Your task to perform on an android device: Open Google Chrome Image 0: 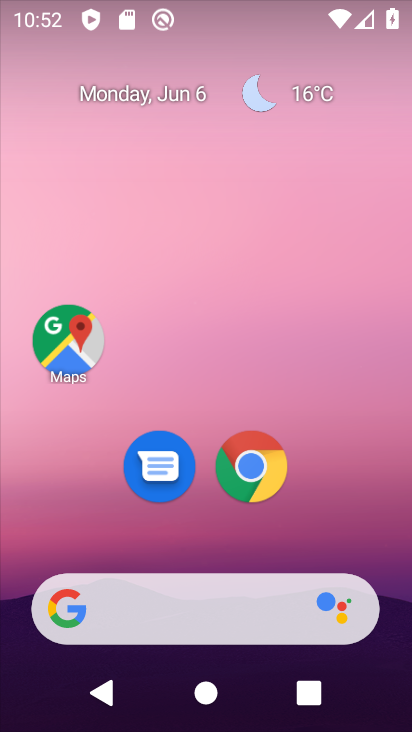
Step 0: click (247, 454)
Your task to perform on an android device: Open Google Chrome Image 1: 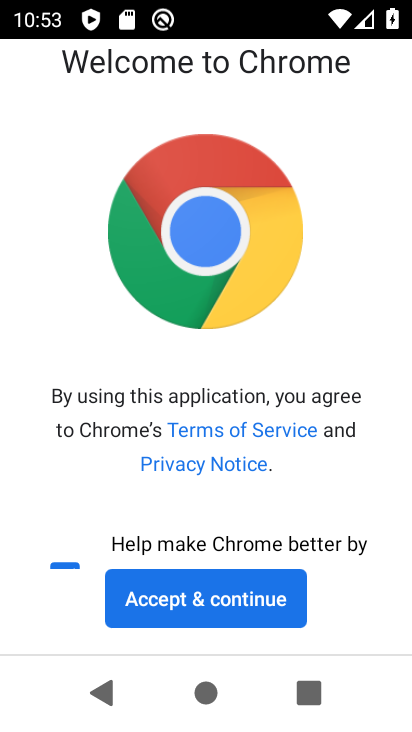
Step 1: click (254, 590)
Your task to perform on an android device: Open Google Chrome Image 2: 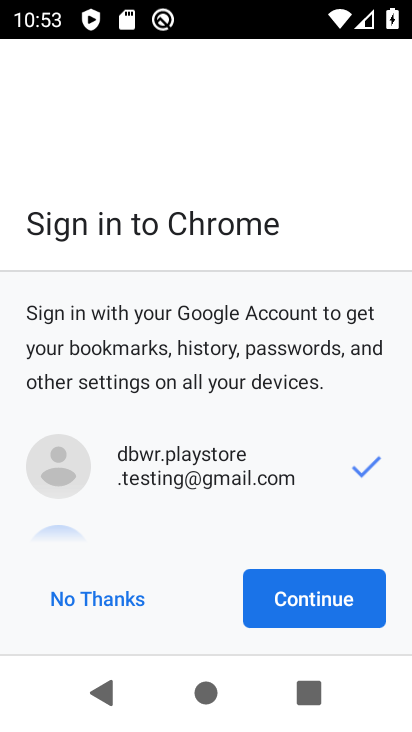
Step 2: click (348, 620)
Your task to perform on an android device: Open Google Chrome Image 3: 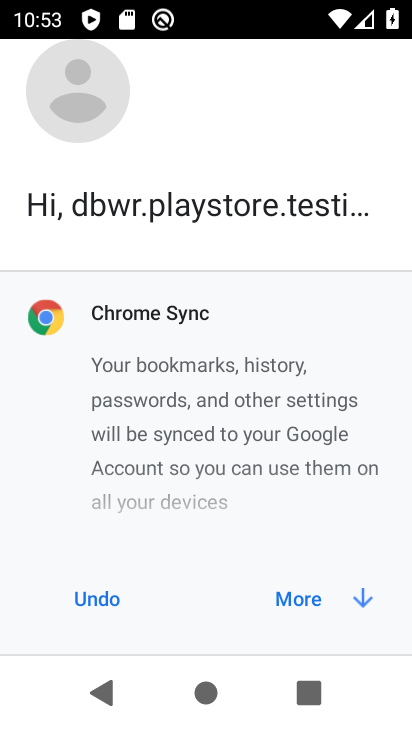
Step 3: click (348, 620)
Your task to perform on an android device: Open Google Chrome Image 4: 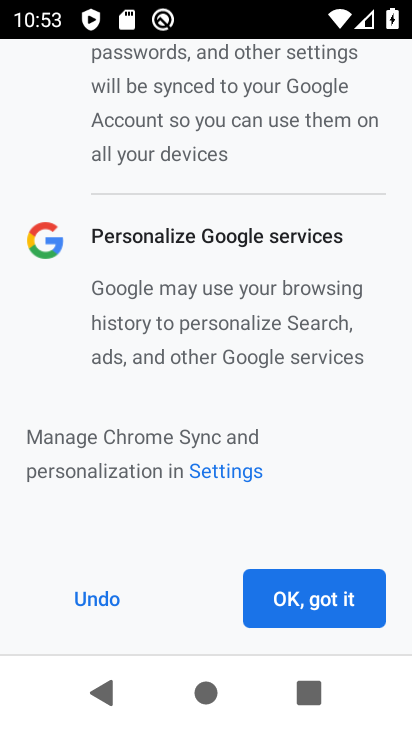
Step 4: click (348, 620)
Your task to perform on an android device: Open Google Chrome Image 5: 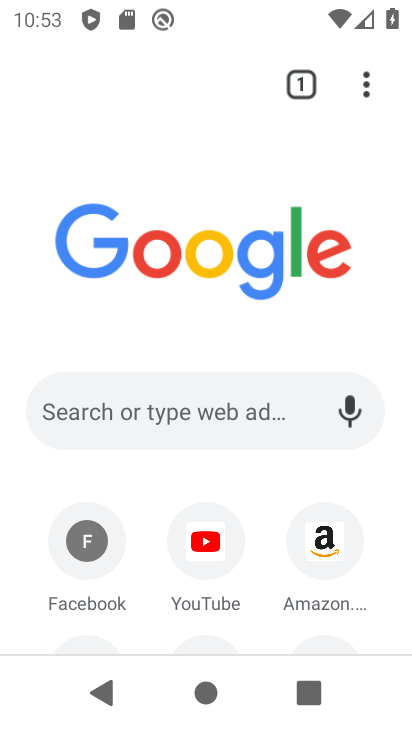
Step 5: task complete